Your task to perform on an android device: open wifi settings Image 0: 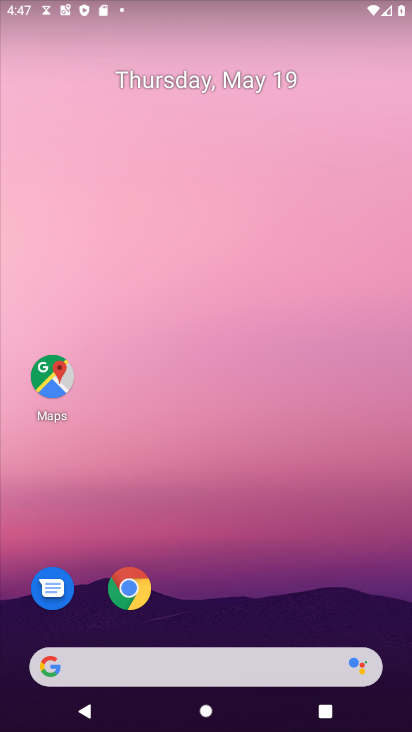
Step 0: drag from (245, 598) to (265, 57)
Your task to perform on an android device: open wifi settings Image 1: 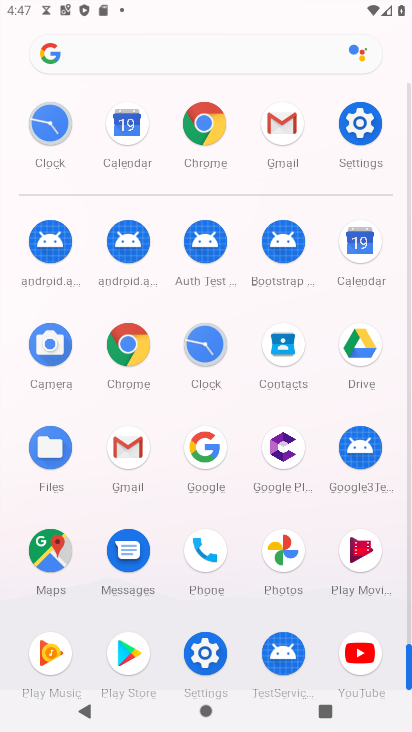
Step 1: click (371, 134)
Your task to perform on an android device: open wifi settings Image 2: 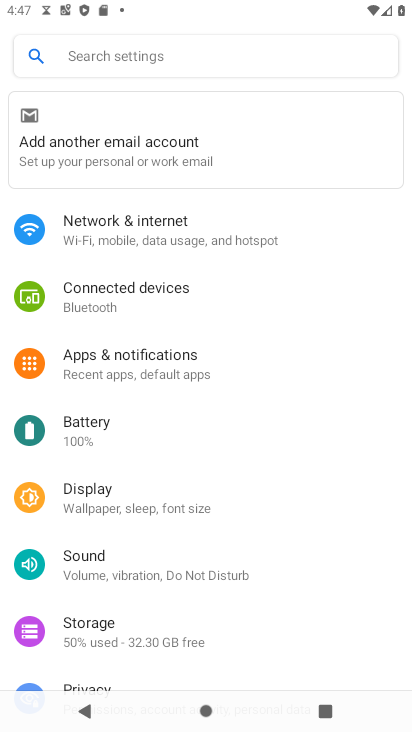
Step 2: click (168, 238)
Your task to perform on an android device: open wifi settings Image 3: 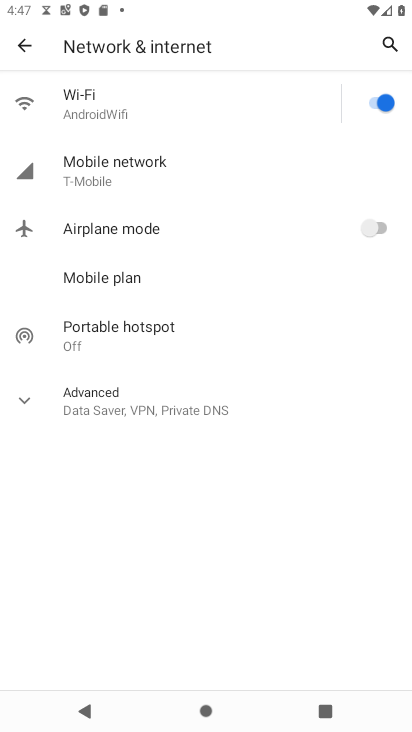
Step 3: click (115, 99)
Your task to perform on an android device: open wifi settings Image 4: 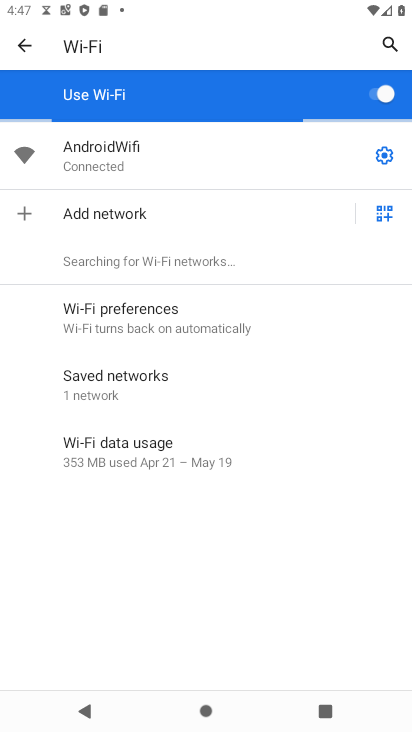
Step 4: task complete